Your task to perform on an android device: open app "YouTube Kids" (install if not already installed) and enter user name: "atmospheric@gmail.com" and password: "raze" Image 0: 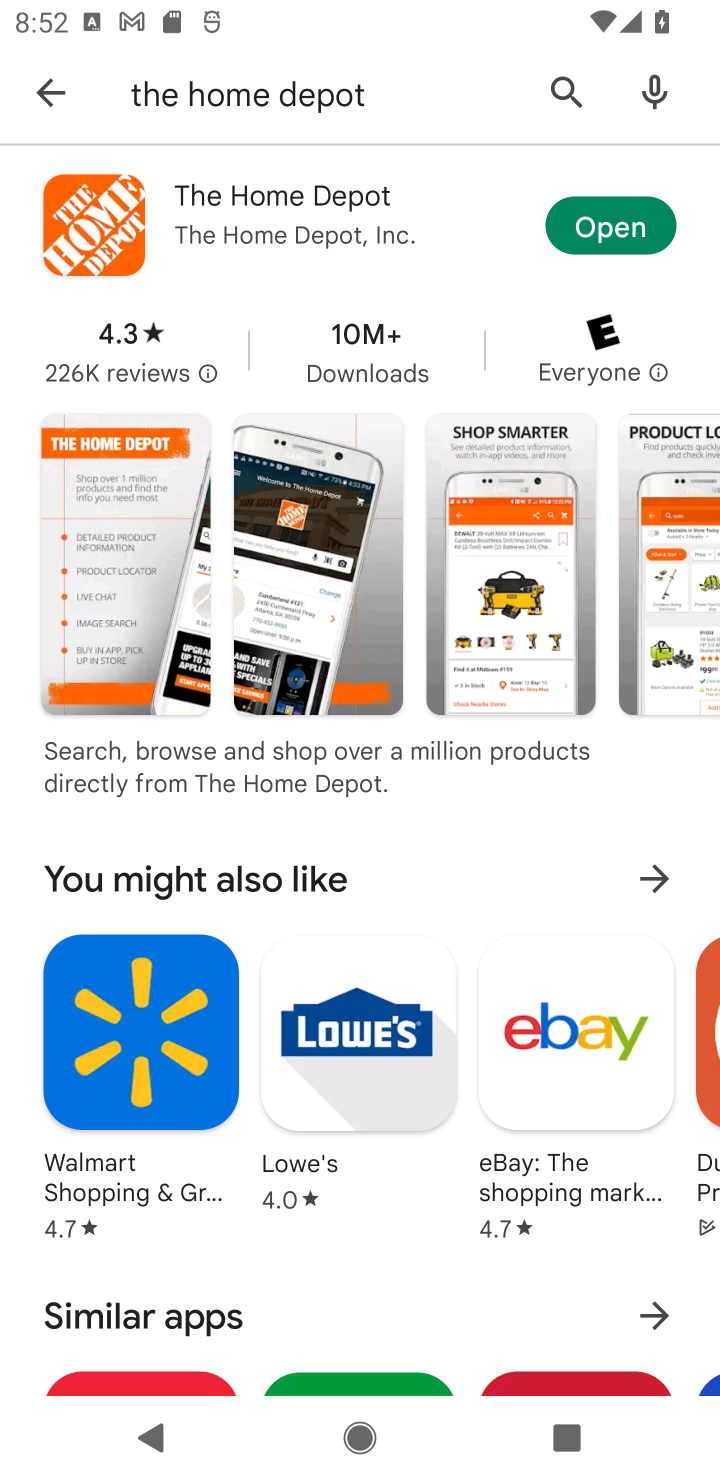
Step 0: press home button
Your task to perform on an android device: open app "YouTube Kids" (install if not already installed) and enter user name: "atmospheric@gmail.com" and password: "raze" Image 1: 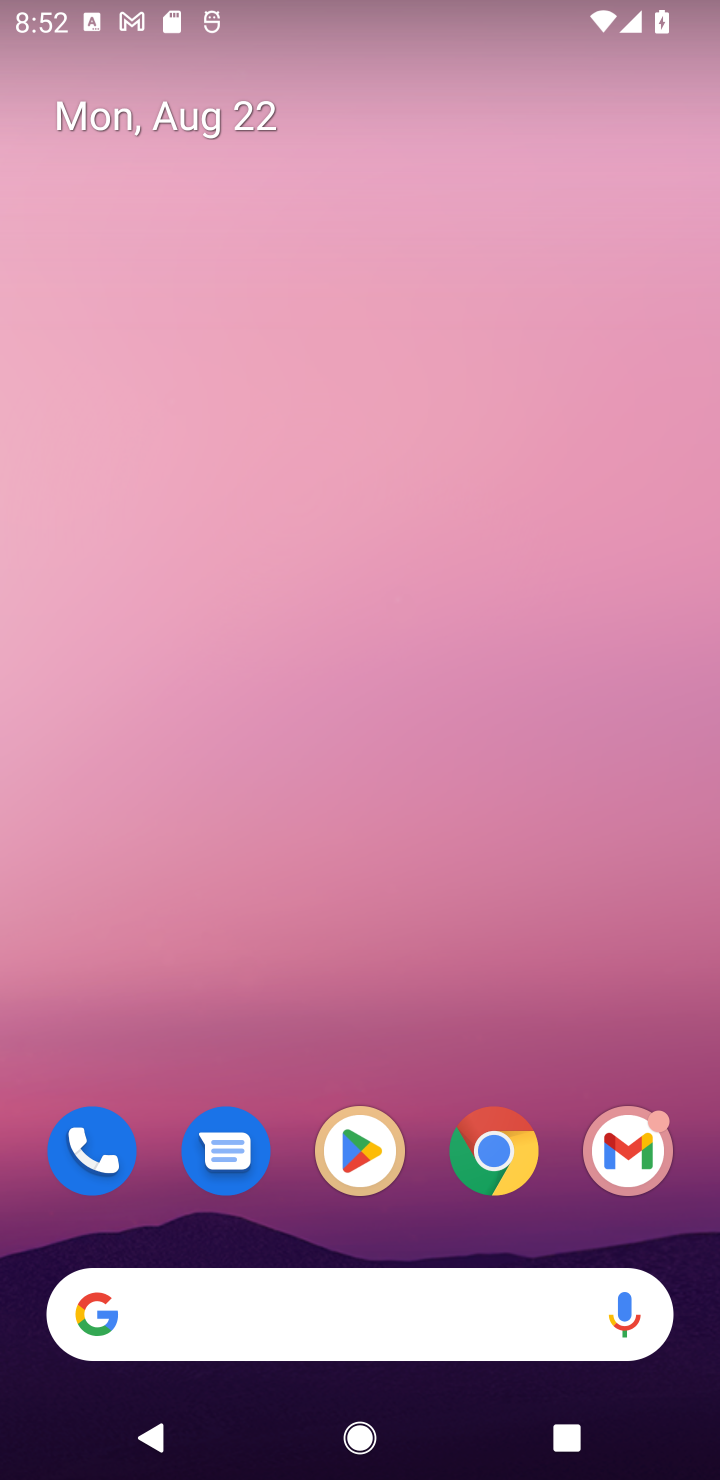
Step 1: click (361, 1159)
Your task to perform on an android device: open app "YouTube Kids" (install if not already installed) and enter user name: "atmospheric@gmail.com" and password: "raze" Image 2: 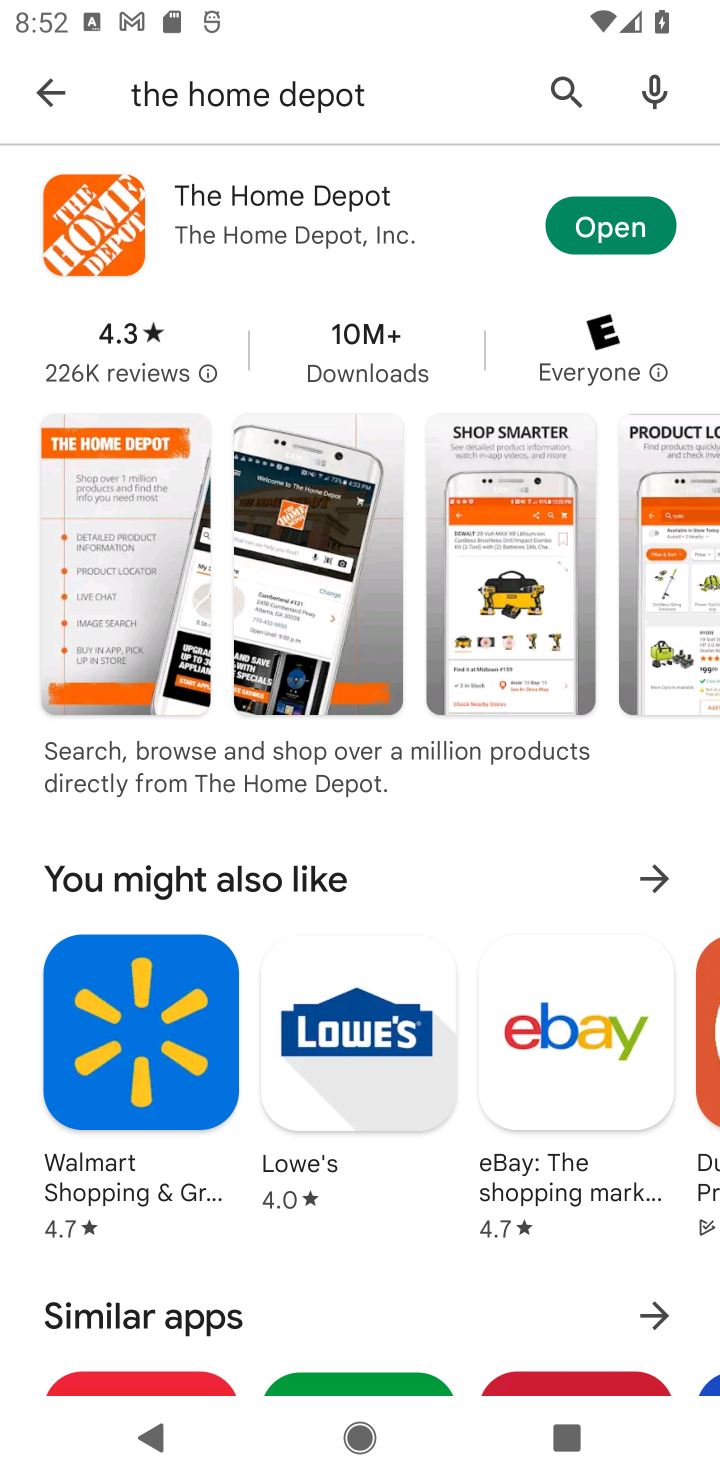
Step 2: click (554, 88)
Your task to perform on an android device: open app "YouTube Kids" (install if not already installed) and enter user name: "atmospheric@gmail.com" and password: "raze" Image 3: 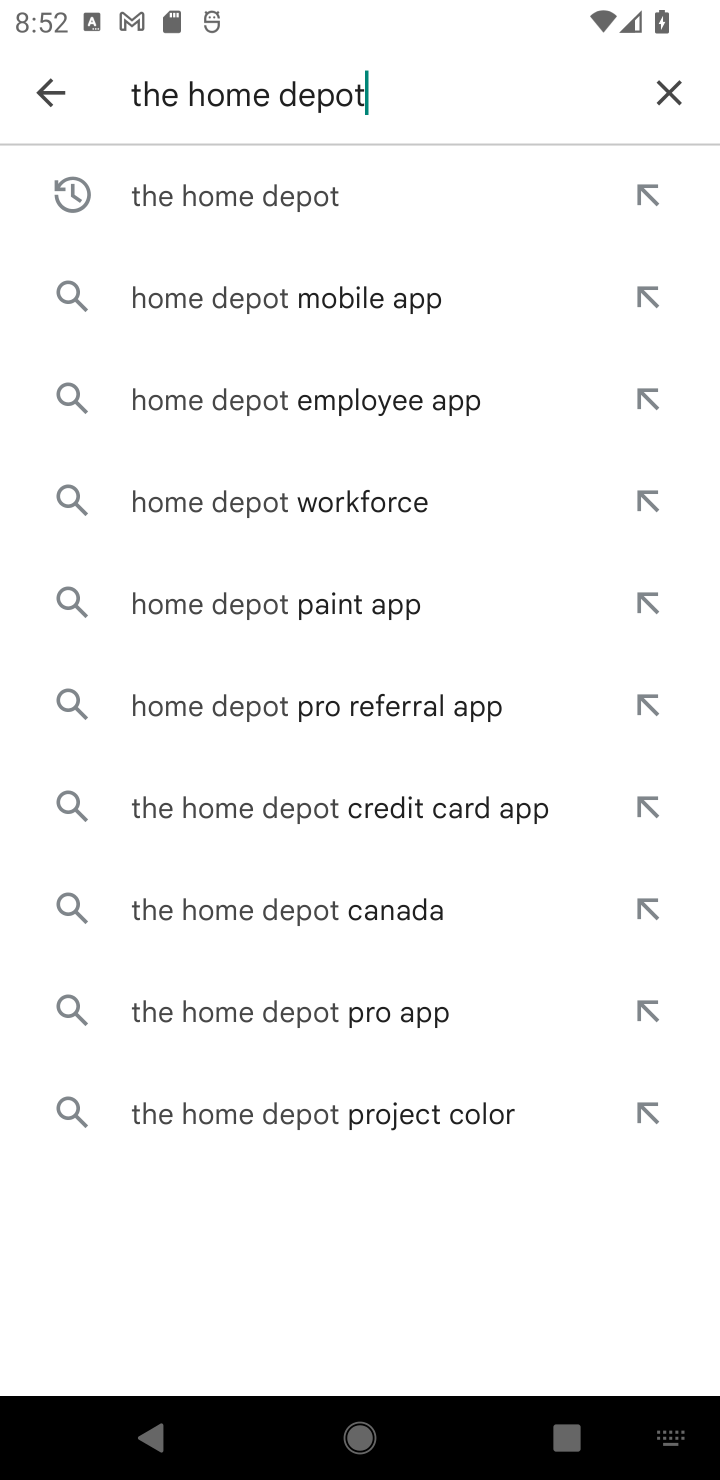
Step 3: click (667, 84)
Your task to perform on an android device: open app "YouTube Kids" (install if not already installed) and enter user name: "atmospheric@gmail.com" and password: "raze" Image 4: 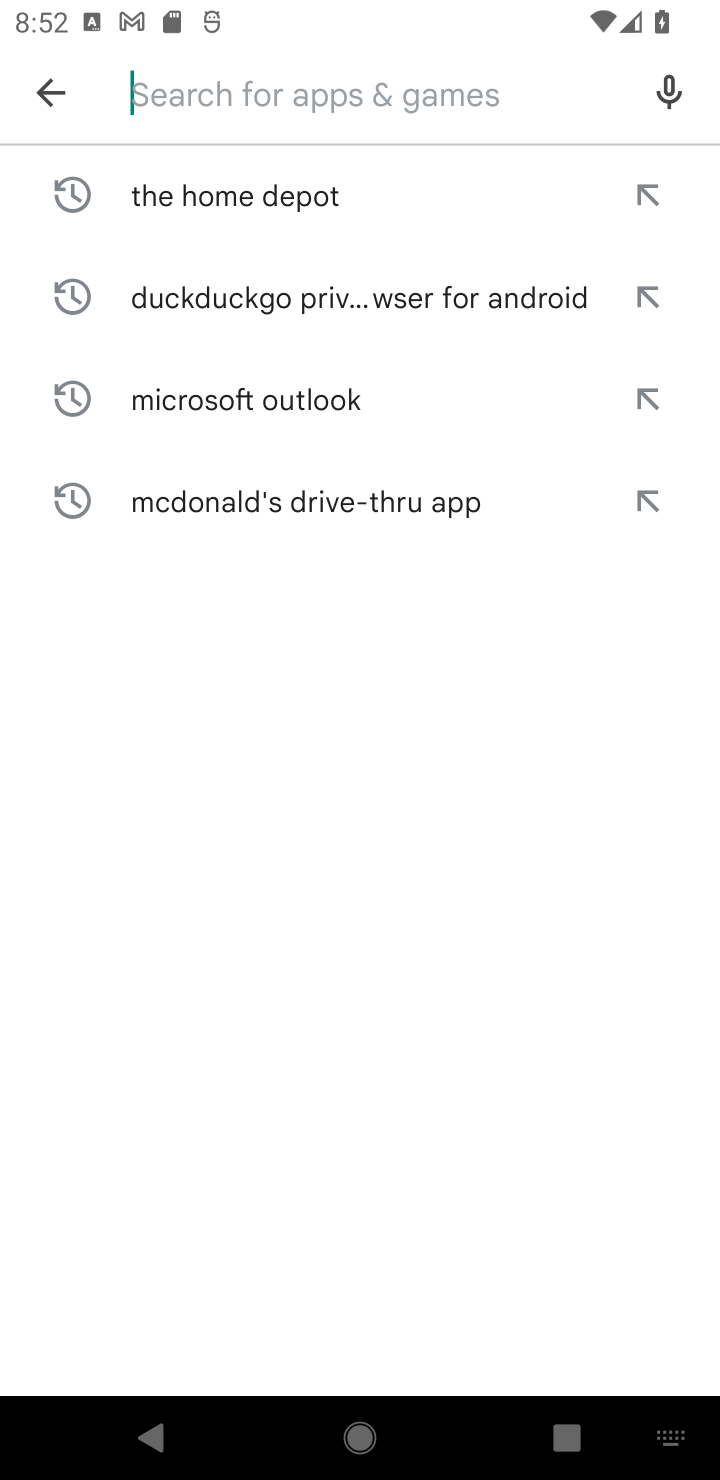
Step 4: type "YouTube Kids"
Your task to perform on an android device: open app "YouTube Kids" (install if not already installed) and enter user name: "atmospheric@gmail.com" and password: "raze" Image 5: 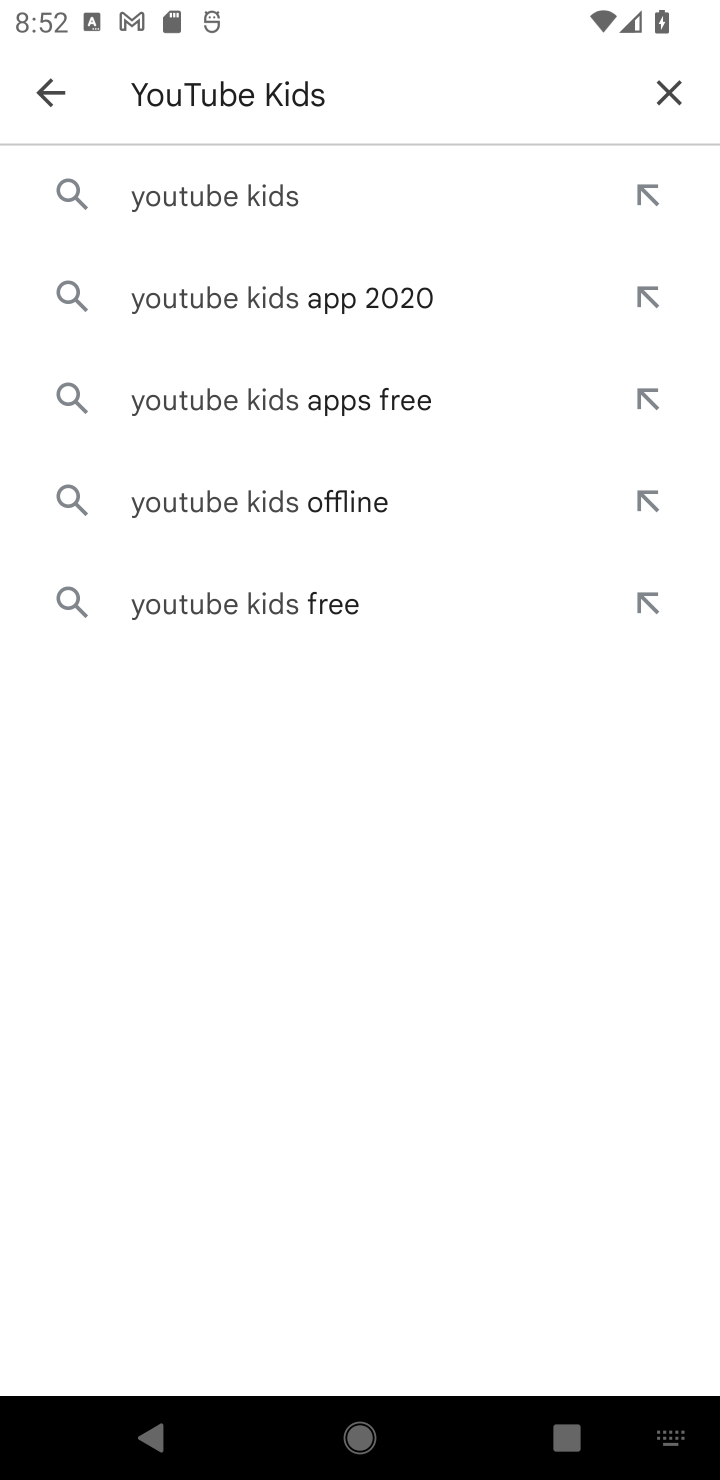
Step 5: click (239, 211)
Your task to perform on an android device: open app "YouTube Kids" (install if not already installed) and enter user name: "atmospheric@gmail.com" and password: "raze" Image 6: 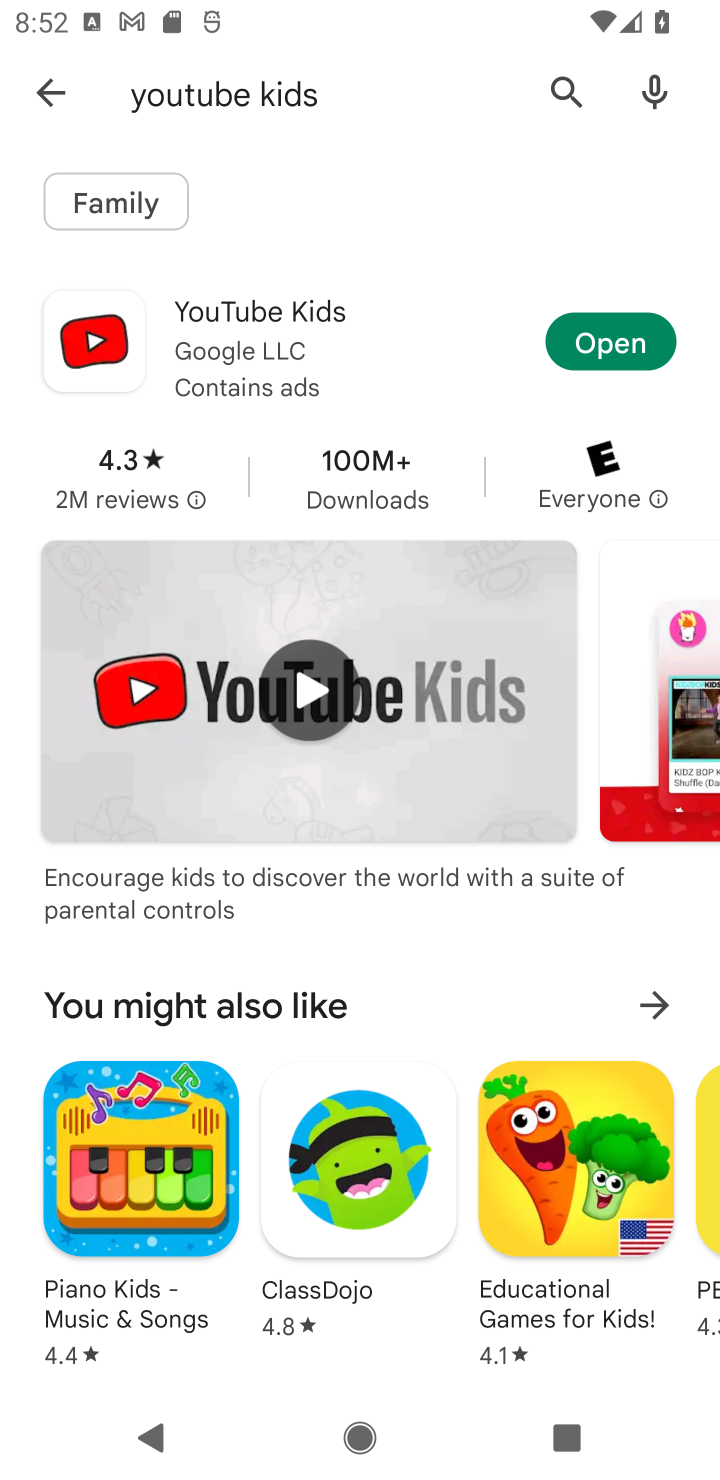
Step 6: click (622, 352)
Your task to perform on an android device: open app "YouTube Kids" (install if not already installed) and enter user name: "atmospheric@gmail.com" and password: "raze" Image 7: 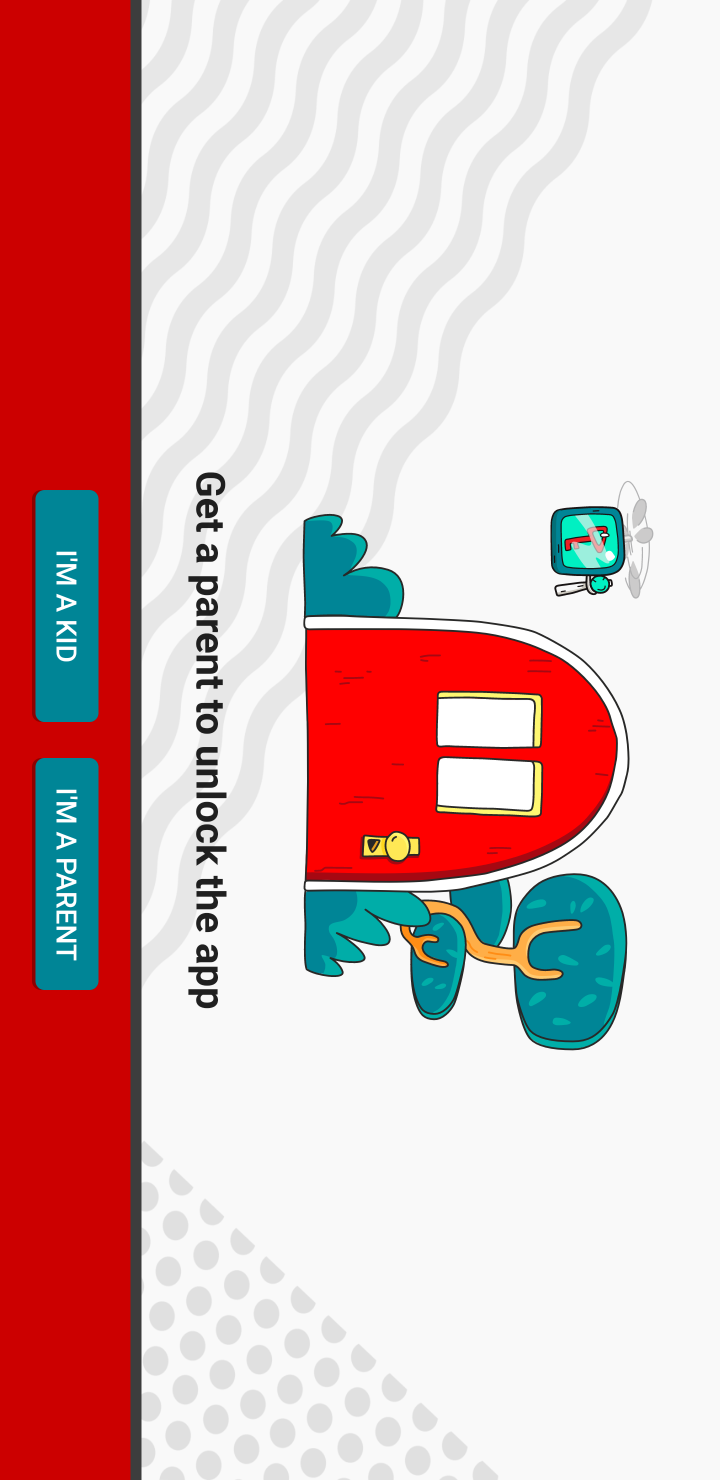
Step 7: task complete